Your task to perform on an android device: Go to network settings Image 0: 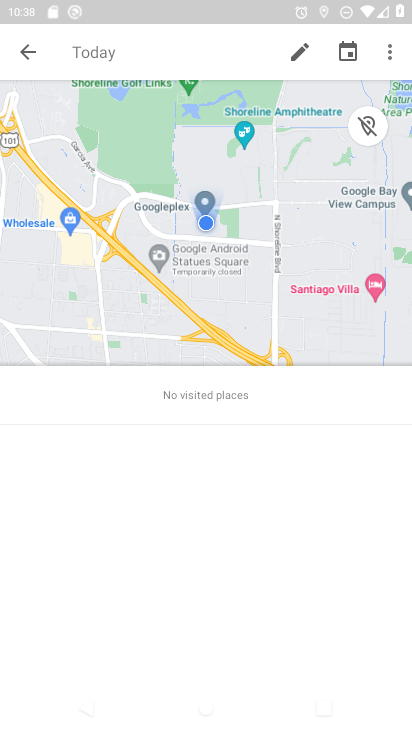
Step 0: press home button
Your task to perform on an android device: Go to network settings Image 1: 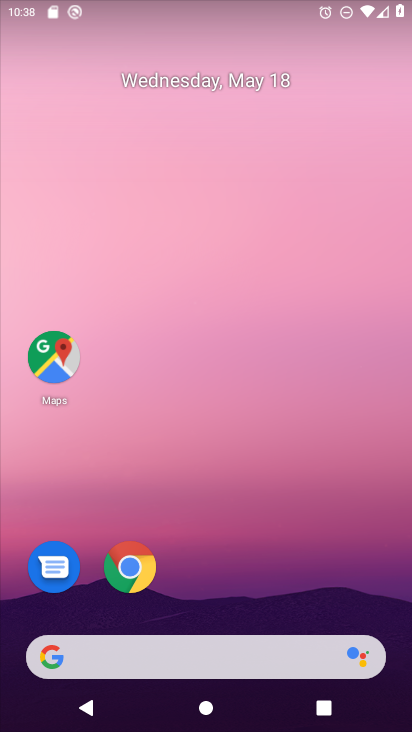
Step 1: drag from (231, 672) to (256, 135)
Your task to perform on an android device: Go to network settings Image 2: 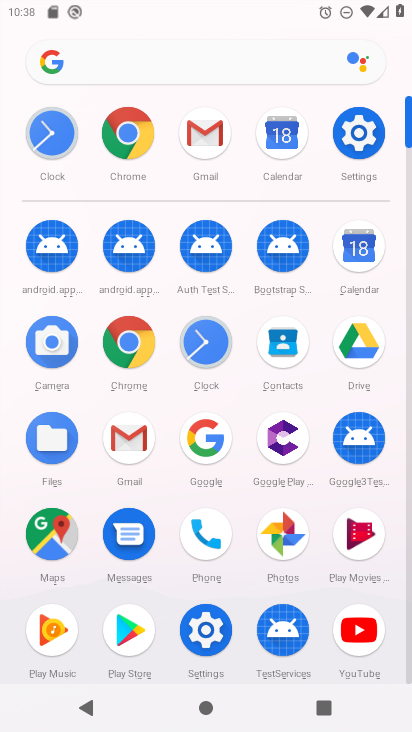
Step 2: click (367, 139)
Your task to perform on an android device: Go to network settings Image 3: 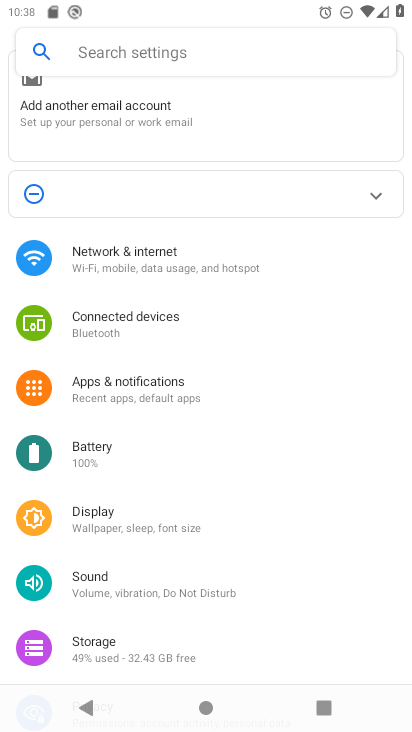
Step 3: click (172, 274)
Your task to perform on an android device: Go to network settings Image 4: 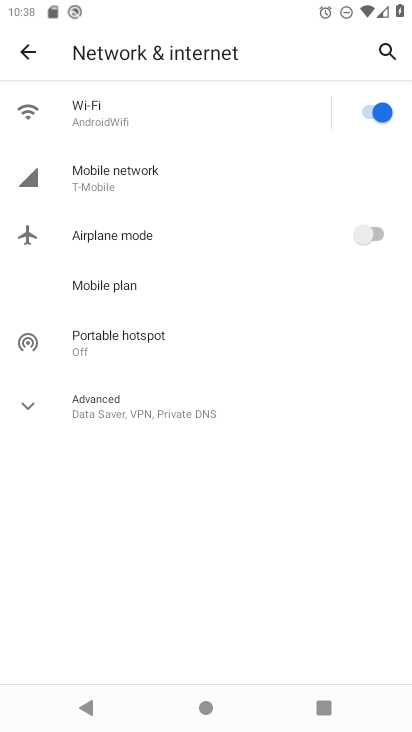
Step 4: task complete